Your task to perform on an android device: Search for pizza restaurants on Maps Image 0: 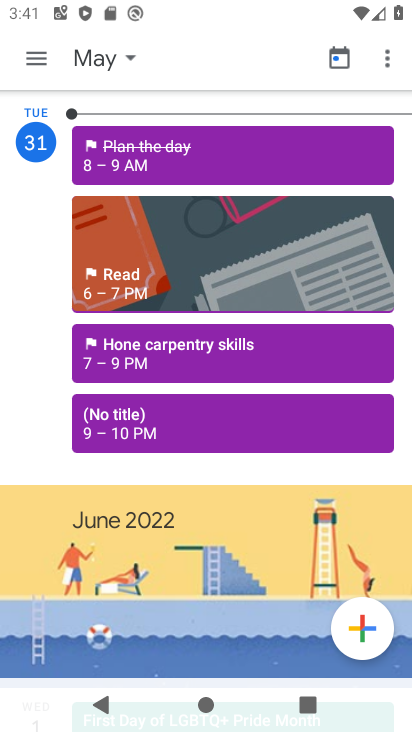
Step 0: press home button
Your task to perform on an android device: Search for pizza restaurants on Maps Image 1: 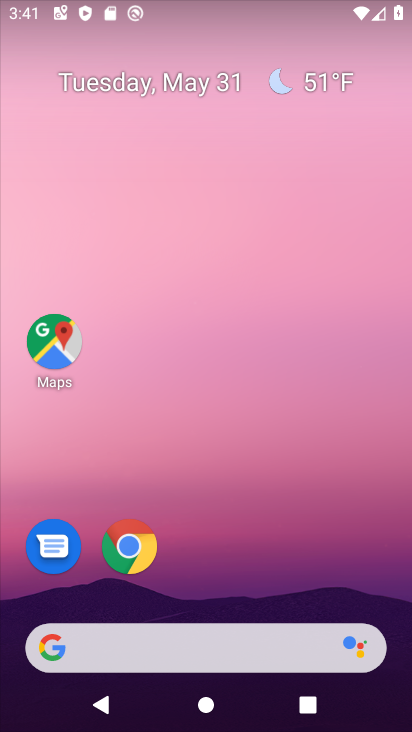
Step 1: click (212, 646)
Your task to perform on an android device: Search for pizza restaurants on Maps Image 2: 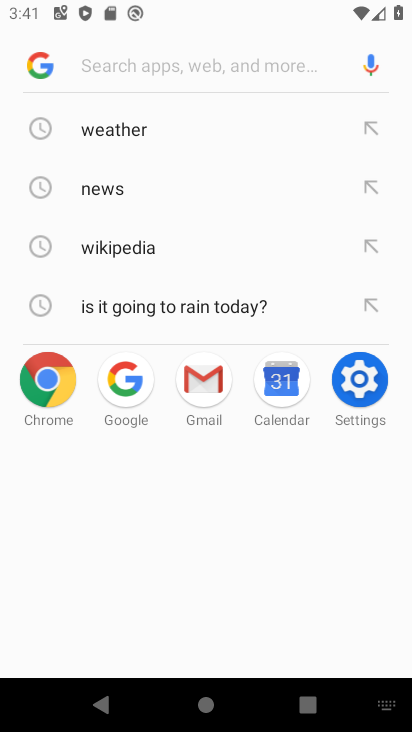
Step 2: press home button
Your task to perform on an android device: Search for pizza restaurants on Maps Image 3: 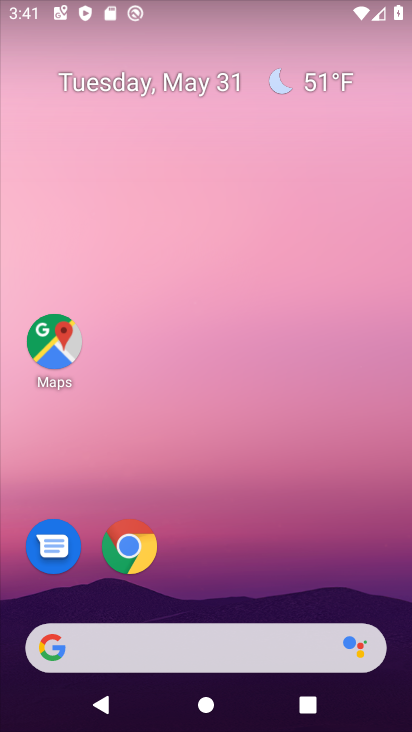
Step 3: click (49, 346)
Your task to perform on an android device: Search for pizza restaurants on Maps Image 4: 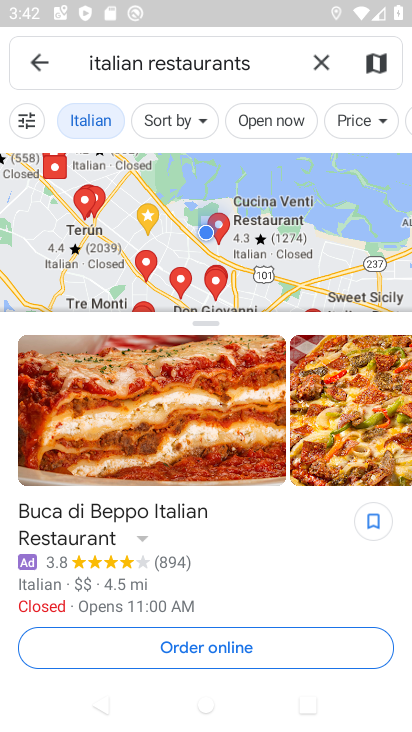
Step 4: click (323, 60)
Your task to perform on an android device: Search for pizza restaurants on Maps Image 5: 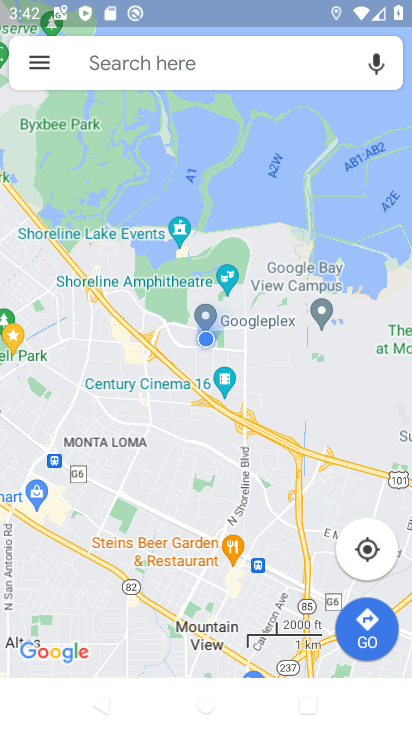
Step 5: click (217, 58)
Your task to perform on an android device: Search for pizza restaurants on Maps Image 6: 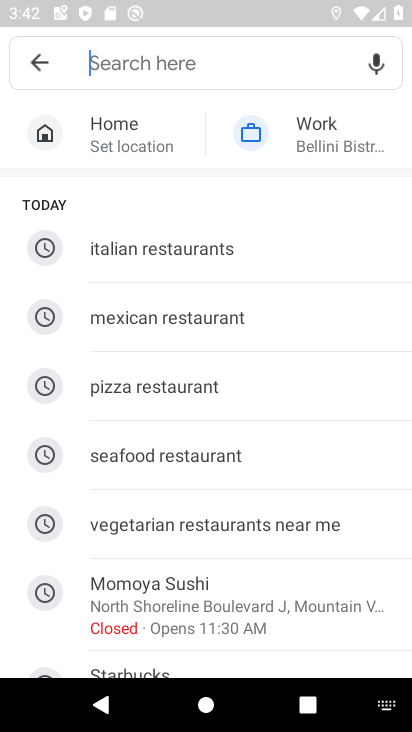
Step 6: click (150, 393)
Your task to perform on an android device: Search for pizza restaurants on Maps Image 7: 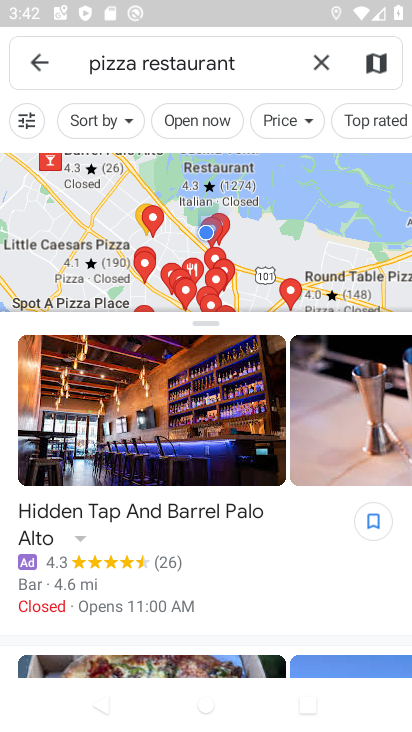
Step 7: task complete